Your task to perform on an android device: Go to Wikipedia Image 0: 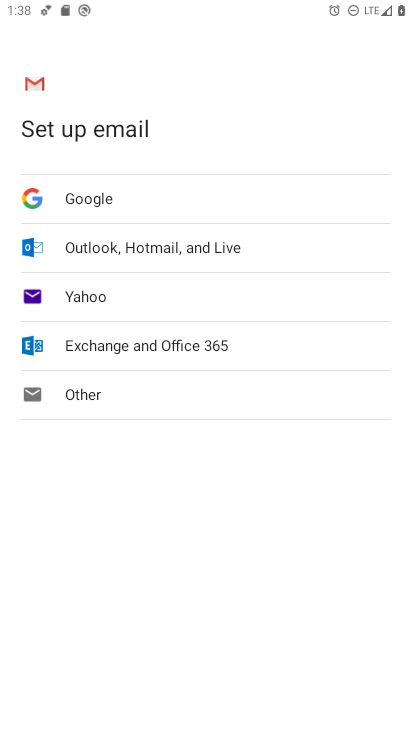
Step 0: press home button
Your task to perform on an android device: Go to Wikipedia Image 1: 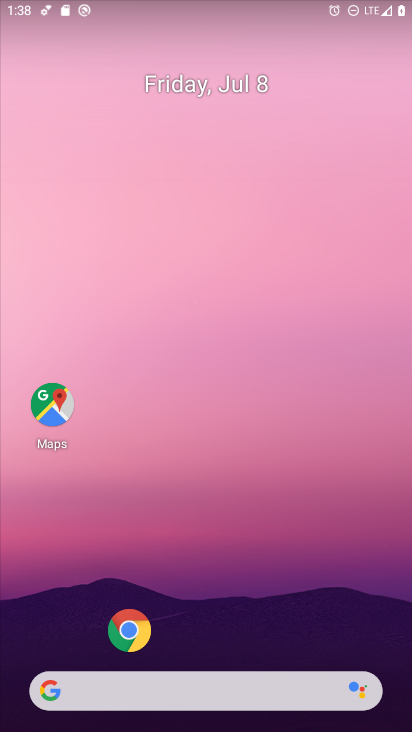
Step 1: drag from (272, 717) to (295, 56)
Your task to perform on an android device: Go to Wikipedia Image 2: 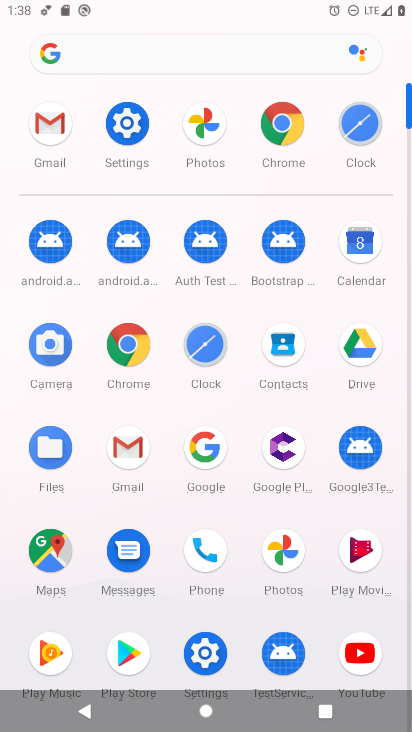
Step 2: click (130, 340)
Your task to perform on an android device: Go to Wikipedia Image 3: 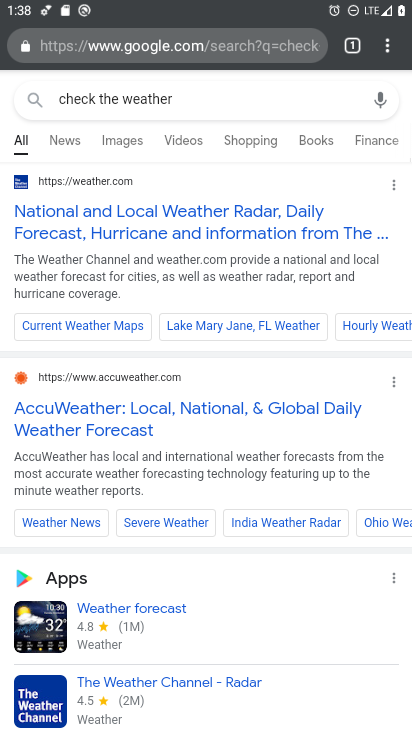
Step 3: press home button
Your task to perform on an android device: Go to Wikipedia Image 4: 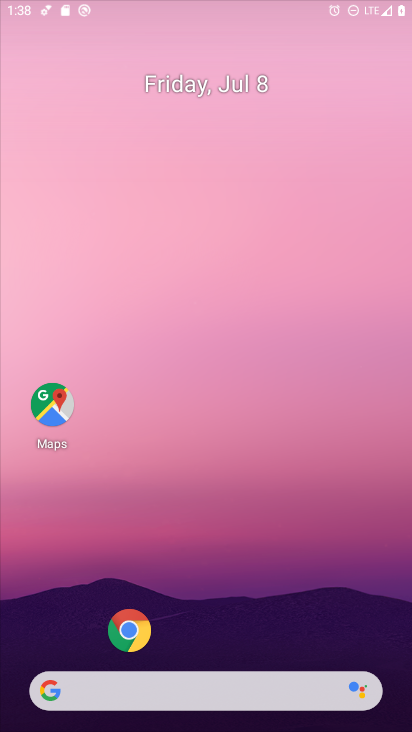
Step 4: drag from (200, 674) to (259, 5)
Your task to perform on an android device: Go to Wikipedia Image 5: 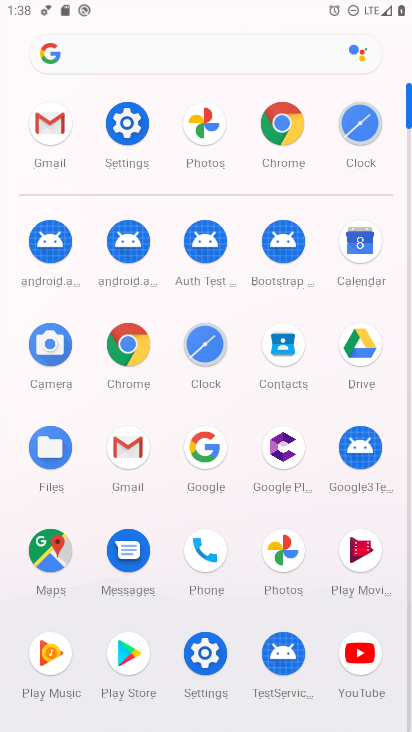
Step 5: click (142, 329)
Your task to perform on an android device: Go to Wikipedia Image 6: 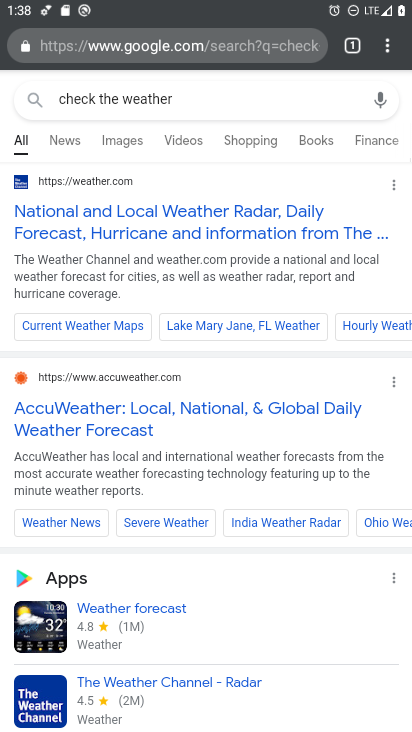
Step 6: drag from (388, 39) to (297, 90)
Your task to perform on an android device: Go to Wikipedia Image 7: 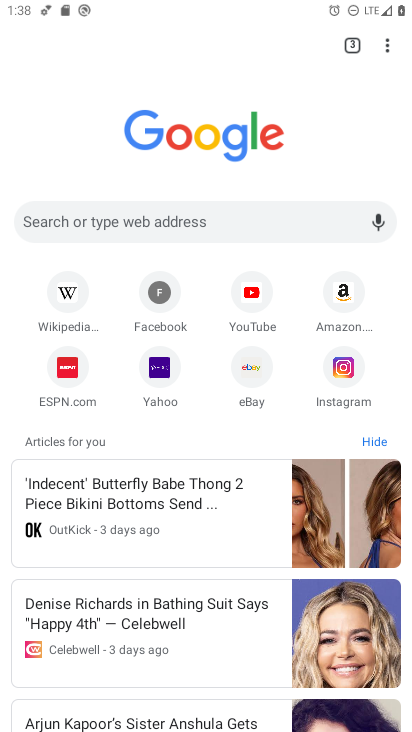
Step 7: click (62, 292)
Your task to perform on an android device: Go to Wikipedia Image 8: 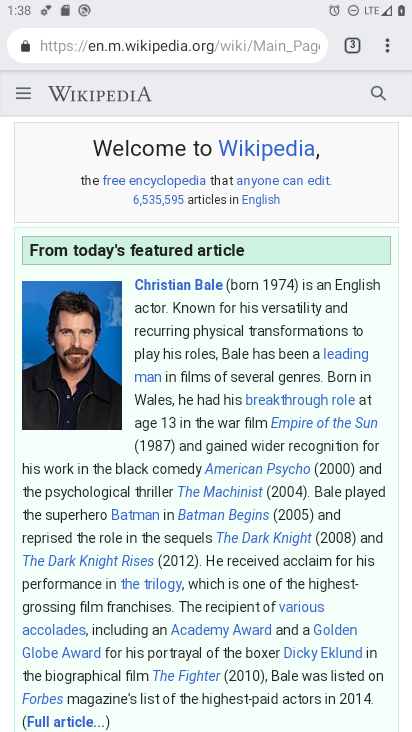
Step 8: task complete